Your task to perform on an android device: Open the phone app and click the voicemail tab. Image 0: 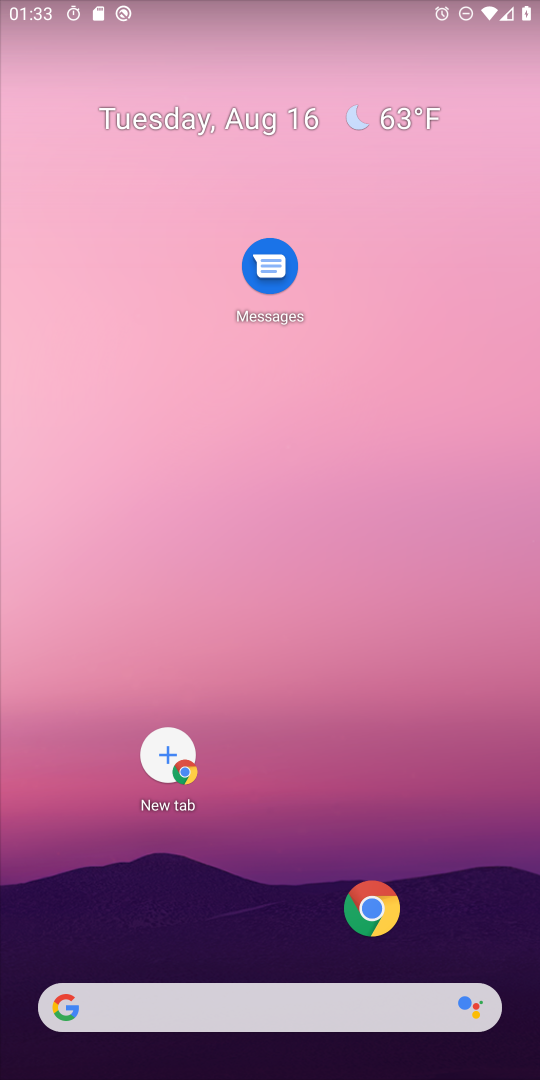
Step 0: drag from (261, 932) to (236, 202)
Your task to perform on an android device: Open the phone app and click the voicemail tab. Image 1: 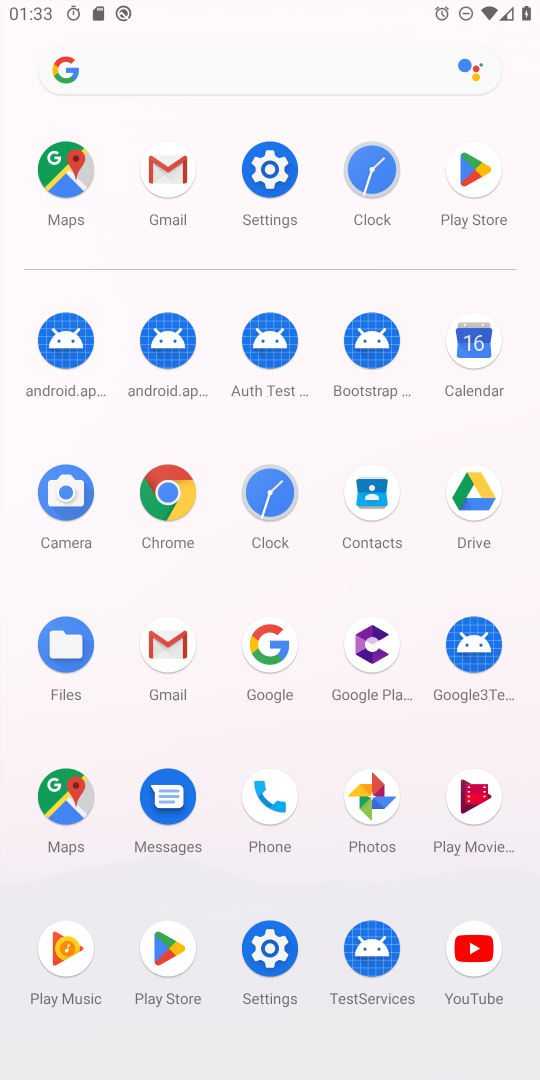
Step 1: click (263, 787)
Your task to perform on an android device: Open the phone app and click the voicemail tab. Image 2: 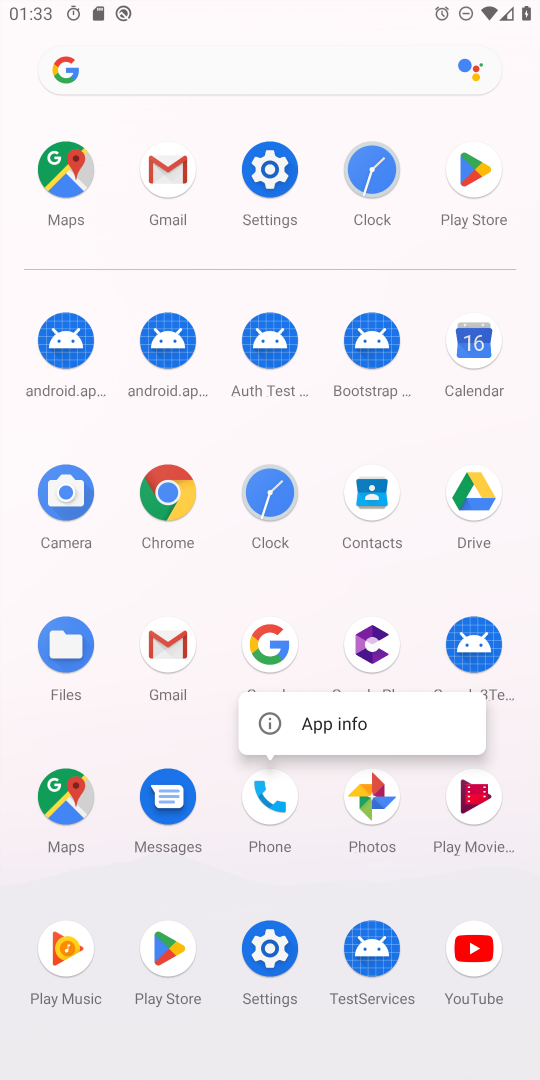
Step 2: click (273, 804)
Your task to perform on an android device: Open the phone app and click the voicemail tab. Image 3: 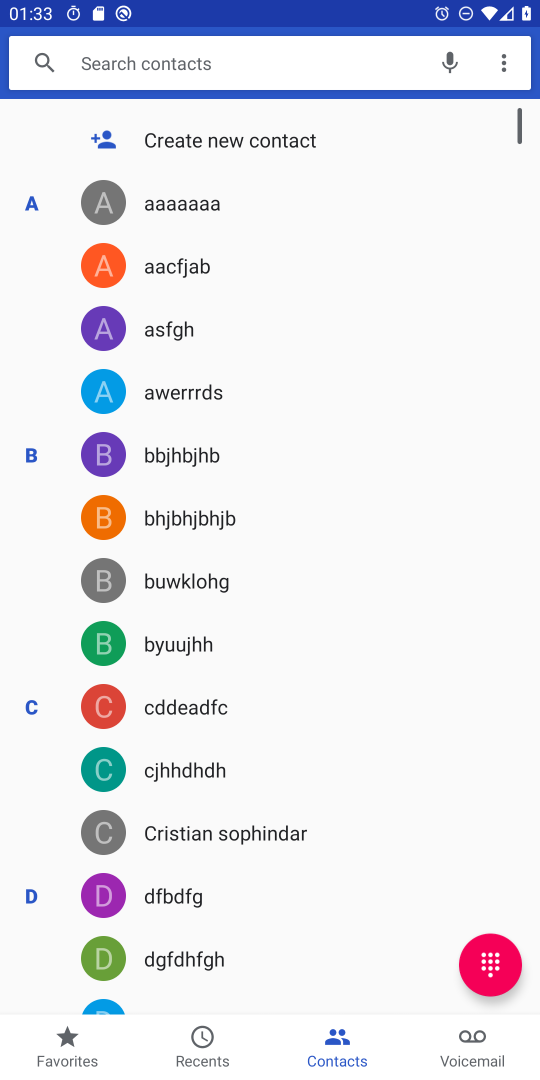
Step 3: click (447, 1055)
Your task to perform on an android device: Open the phone app and click the voicemail tab. Image 4: 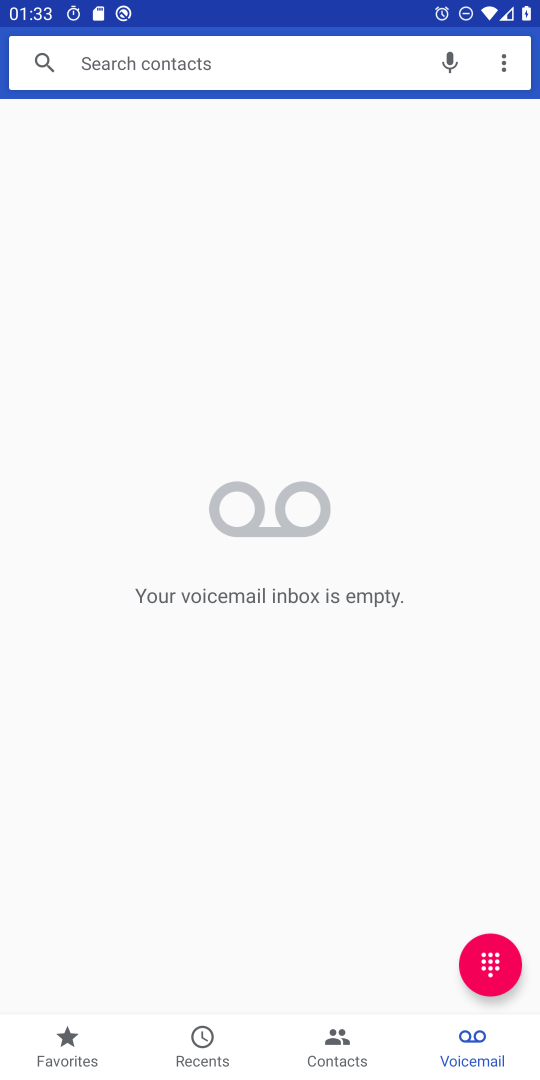
Step 4: task complete